Your task to perform on an android device: Is it going to rain this weekend? Image 0: 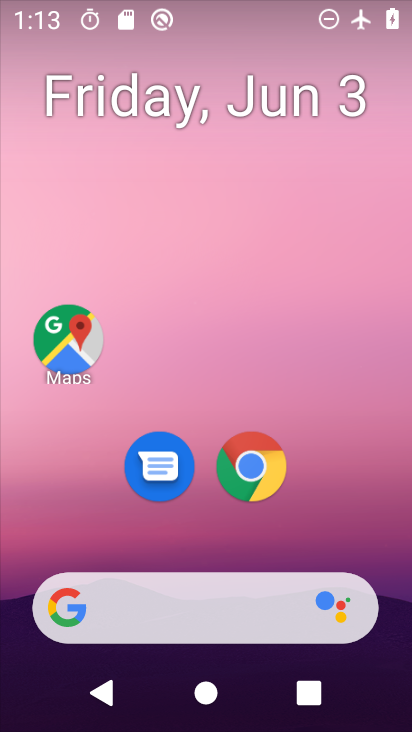
Step 0: drag from (209, 544) to (233, 40)
Your task to perform on an android device: Is it going to rain this weekend? Image 1: 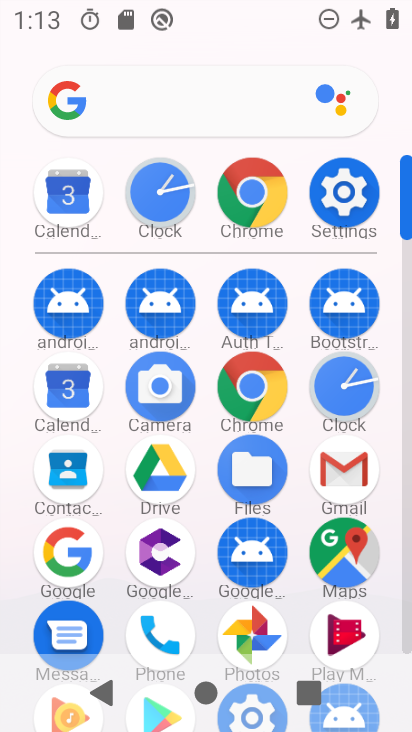
Step 1: click (69, 569)
Your task to perform on an android device: Is it going to rain this weekend? Image 2: 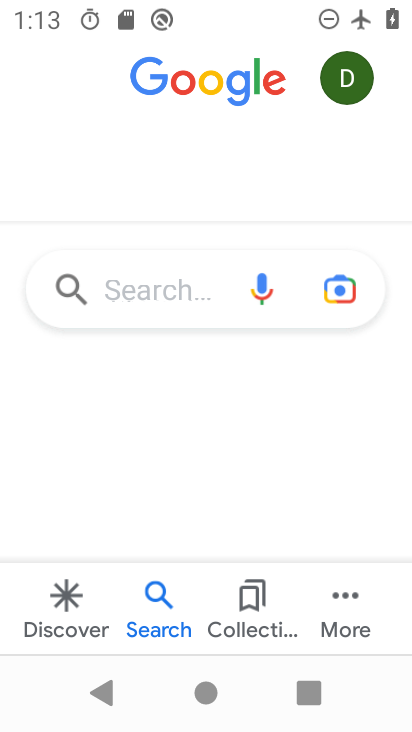
Step 2: click (166, 297)
Your task to perform on an android device: Is it going to rain this weekend? Image 3: 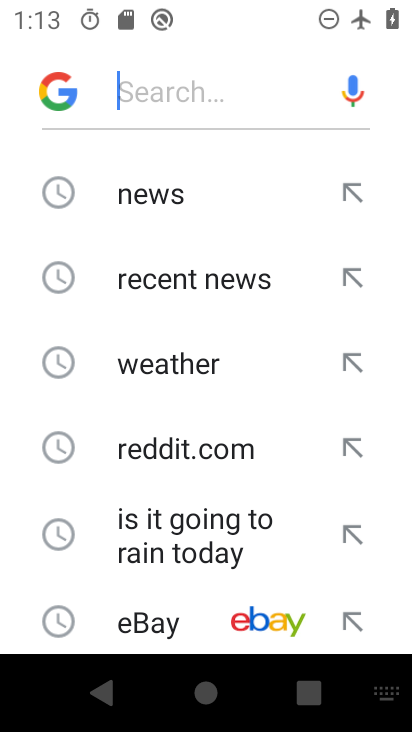
Step 3: click (182, 355)
Your task to perform on an android device: Is it going to rain this weekend? Image 4: 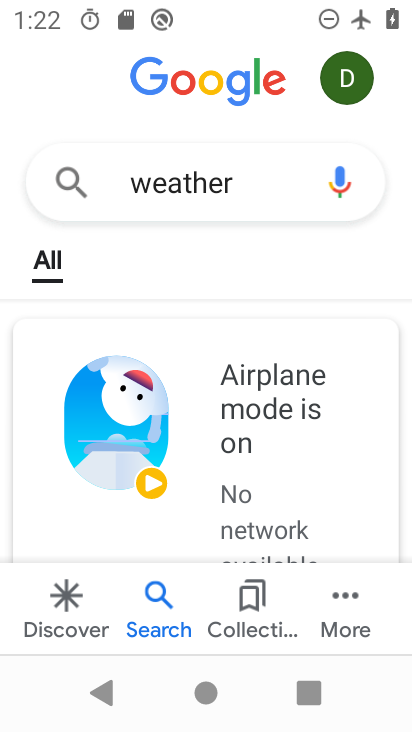
Step 4: task complete